Your task to perform on an android device: What's the weather going to be tomorrow? Image 0: 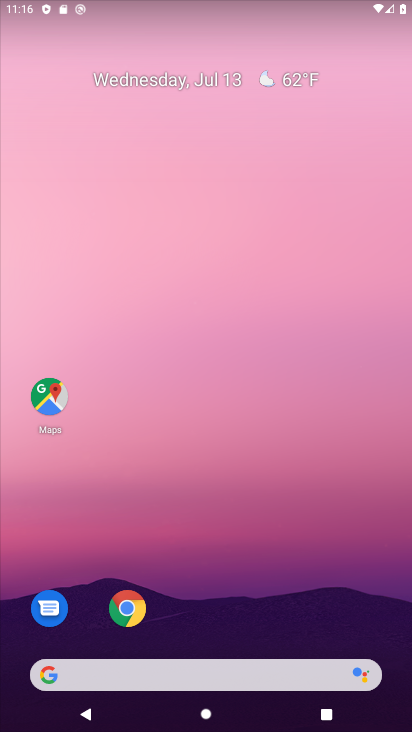
Step 0: drag from (229, 683) to (253, 123)
Your task to perform on an android device: What's the weather going to be tomorrow? Image 1: 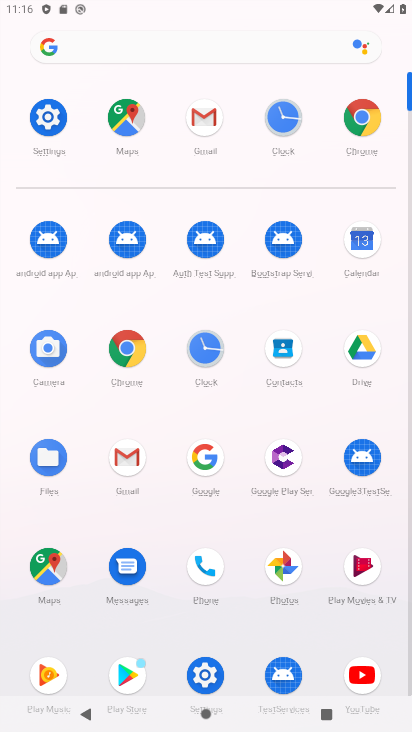
Step 1: click (205, 448)
Your task to perform on an android device: What's the weather going to be tomorrow? Image 2: 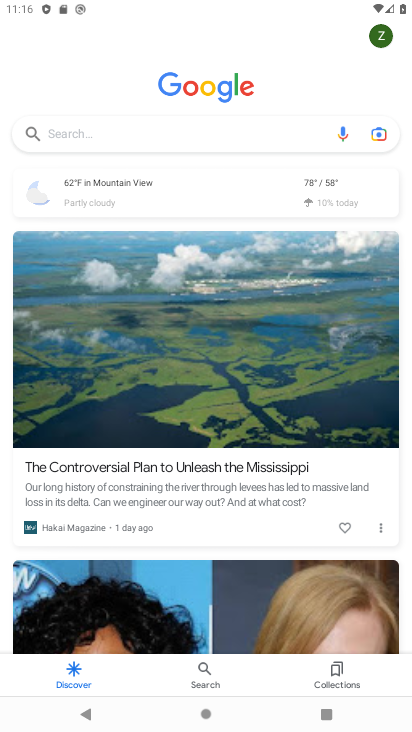
Step 2: click (99, 182)
Your task to perform on an android device: What's the weather going to be tomorrow? Image 3: 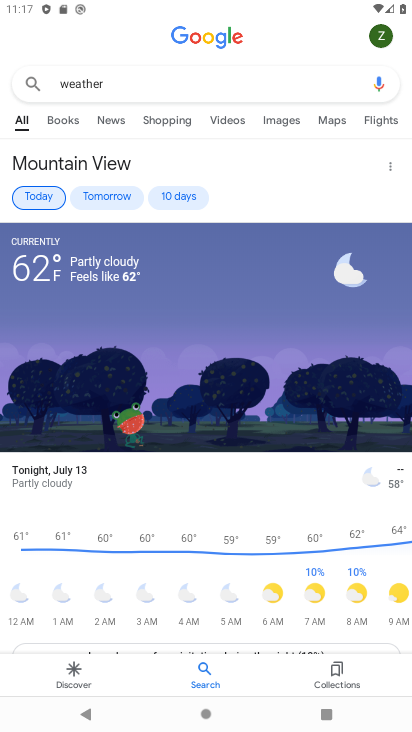
Step 3: click (107, 195)
Your task to perform on an android device: What's the weather going to be tomorrow? Image 4: 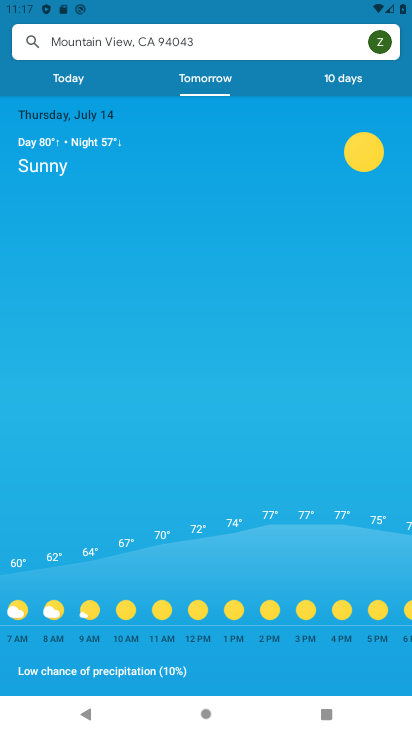
Step 4: task complete